Your task to perform on an android device: Open calendar and show me the third week of next month Image 0: 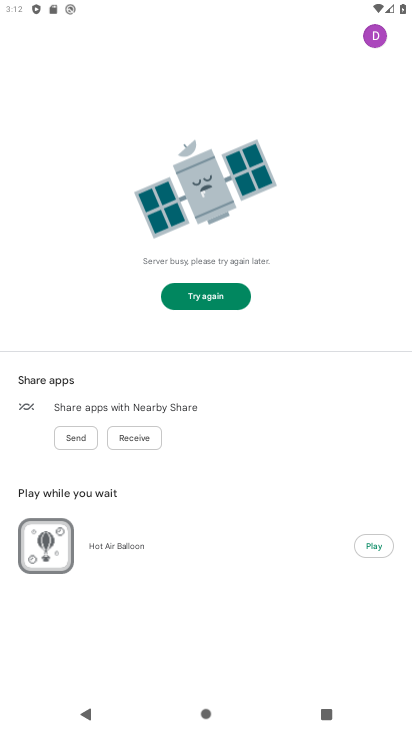
Step 0: press home button
Your task to perform on an android device: Open calendar and show me the third week of next month Image 1: 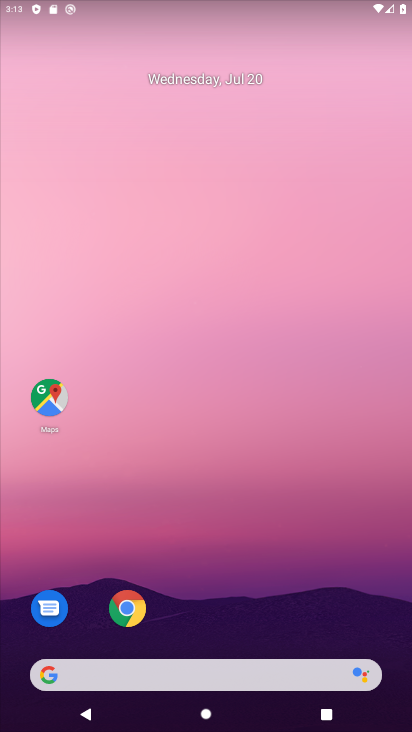
Step 1: drag from (394, 700) to (366, 63)
Your task to perform on an android device: Open calendar and show me the third week of next month Image 2: 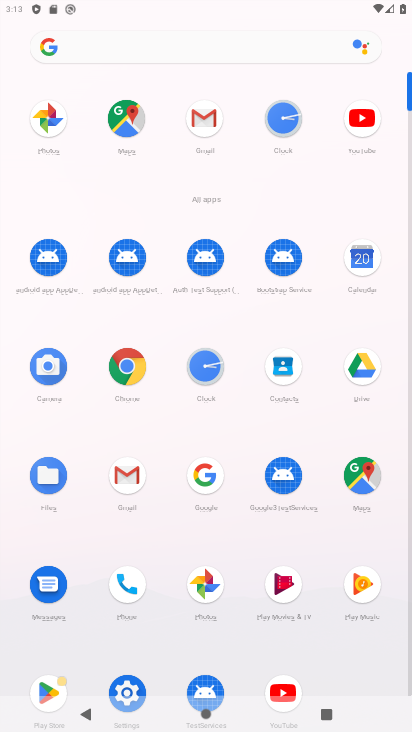
Step 2: click (355, 254)
Your task to perform on an android device: Open calendar and show me the third week of next month Image 3: 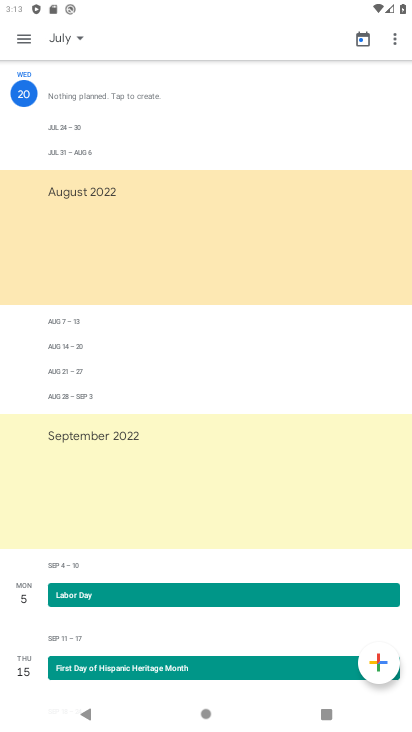
Step 3: click (17, 30)
Your task to perform on an android device: Open calendar and show me the third week of next month Image 4: 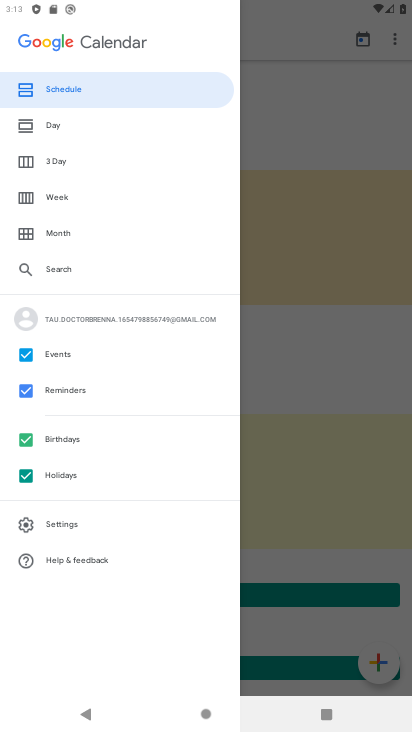
Step 4: click (290, 186)
Your task to perform on an android device: Open calendar and show me the third week of next month Image 5: 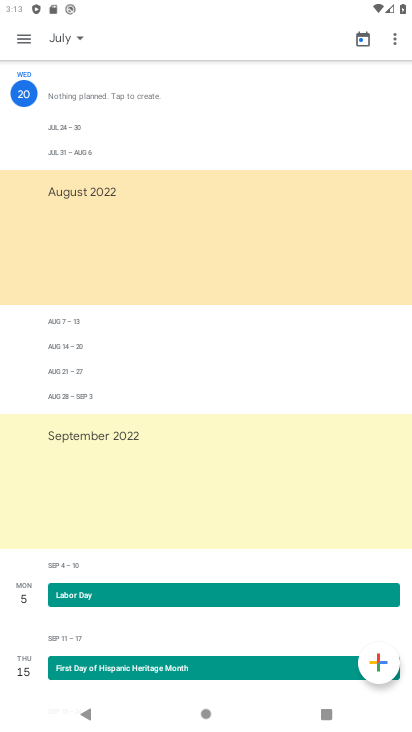
Step 5: click (77, 30)
Your task to perform on an android device: Open calendar and show me the third week of next month Image 6: 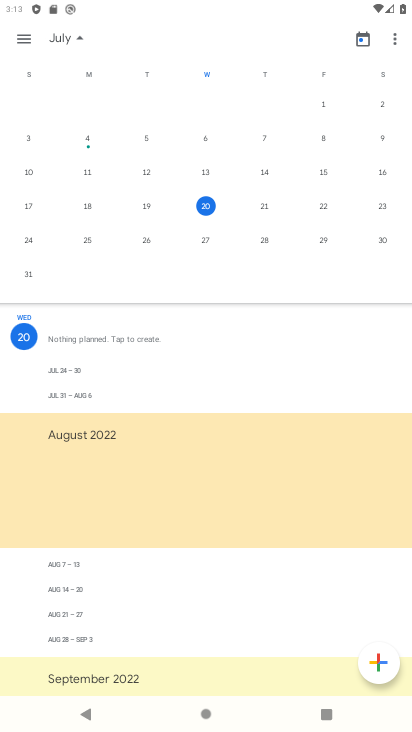
Step 6: drag from (388, 180) to (84, 175)
Your task to perform on an android device: Open calendar and show me the third week of next month Image 7: 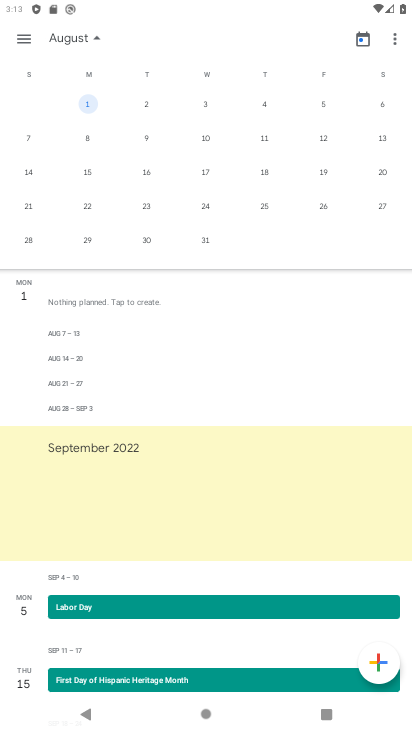
Step 7: click (199, 164)
Your task to perform on an android device: Open calendar and show me the third week of next month Image 8: 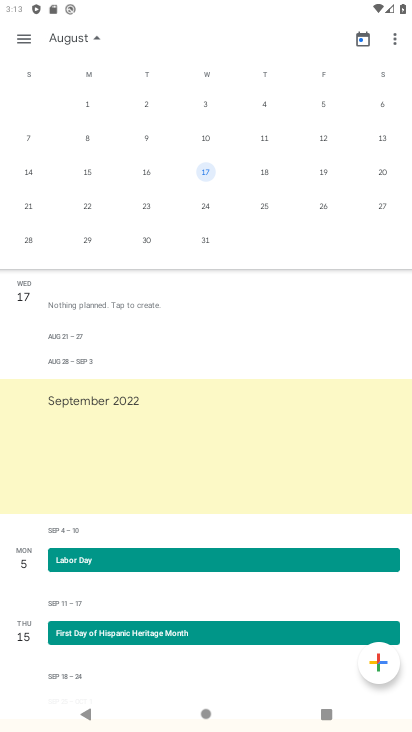
Step 8: click (30, 37)
Your task to perform on an android device: Open calendar and show me the third week of next month Image 9: 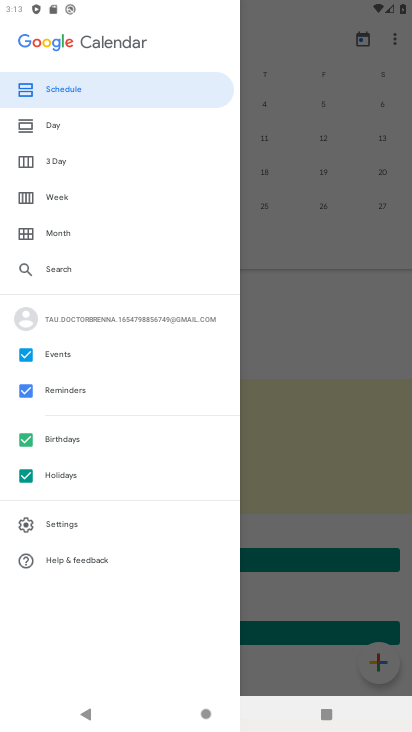
Step 9: click (58, 198)
Your task to perform on an android device: Open calendar and show me the third week of next month Image 10: 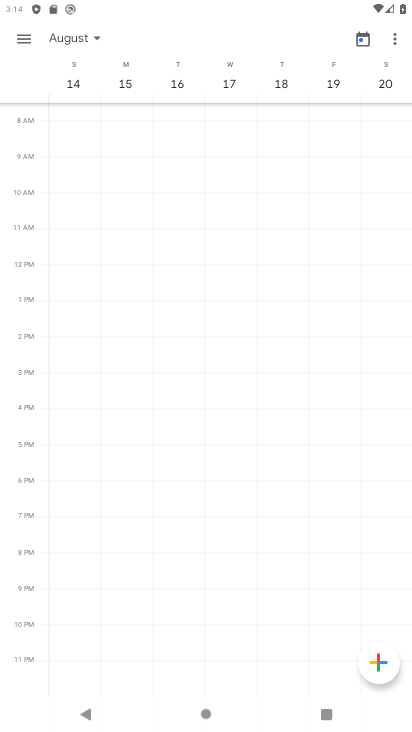
Step 10: click (23, 41)
Your task to perform on an android device: Open calendar and show me the third week of next month Image 11: 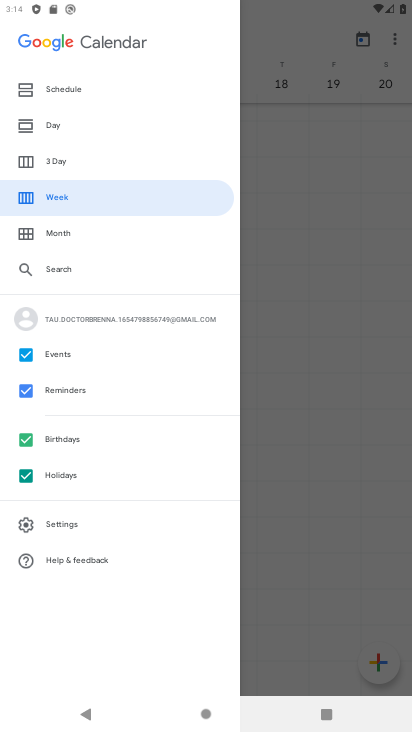
Step 11: click (69, 89)
Your task to perform on an android device: Open calendar and show me the third week of next month Image 12: 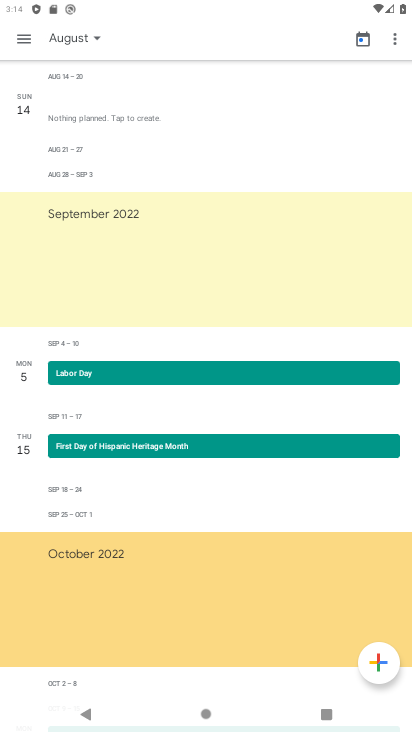
Step 12: task complete